Your task to perform on an android device: Search for usb-b on newegg.com, select the first entry, add it to the cart, then select checkout. Image 0: 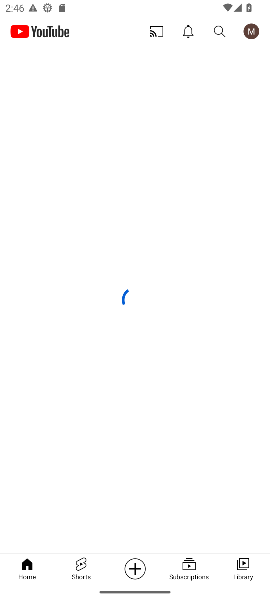
Step 0: press home button
Your task to perform on an android device: Search for usb-b on newegg.com, select the first entry, add it to the cart, then select checkout. Image 1: 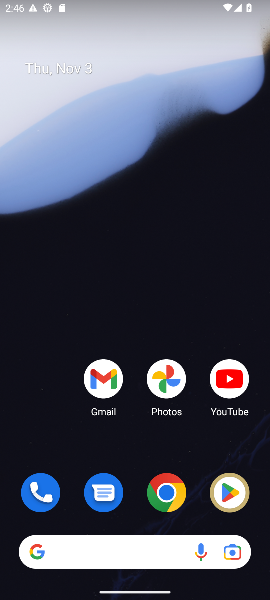
Step 1: click (174, 500)
Your task to perform on an android device: Search for usb-b on newegg.com, select the first entry, add it to the cart, then select checkout. Image 2: 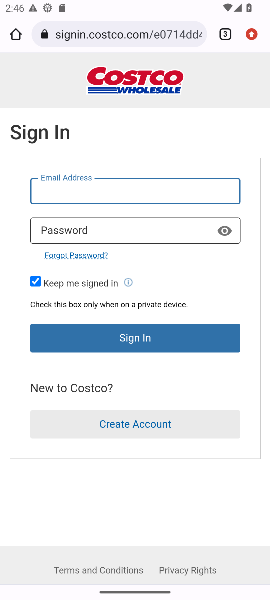
Step 2: click (171, 34)
Your task to perform on an android device: Search for usb-b on newegg.com, select the first entry, add it to the cart, then select checkout. Image 3: 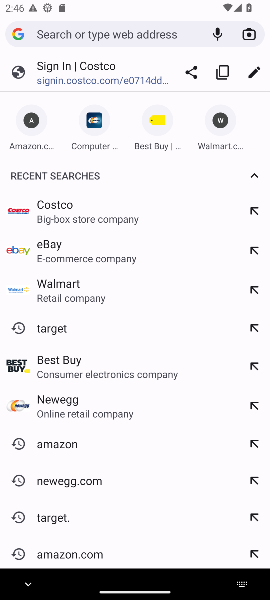
Step 3: click (95, 137)
Your task to perform on an android device: Search for usb-b on newegg.com, select the first entry, add it to the cart, then select checkout. Image 4: 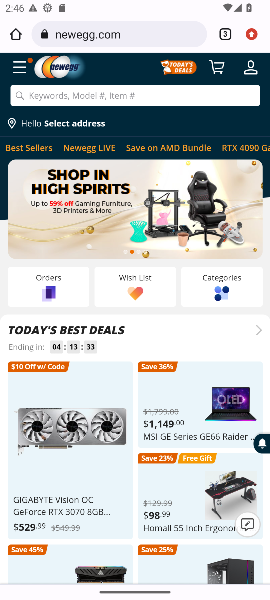
Step 4: click (86, 93)
Your task to perform on an android device: Search for usb-b on newegg.com, select the first entry, add it to the cart, then select checkout. Image 5: 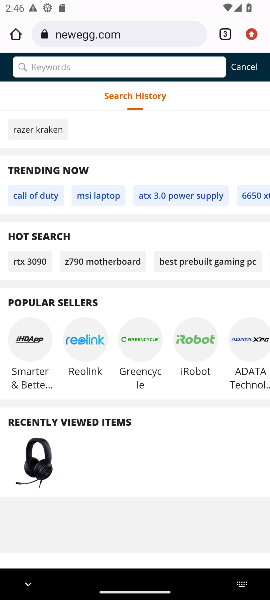
Step 5: type " usb-b"
Your task to perform on an android device: Search for usb-b on newegg.com, select the first entry, add it to the cart, then select checkout. Image 6: 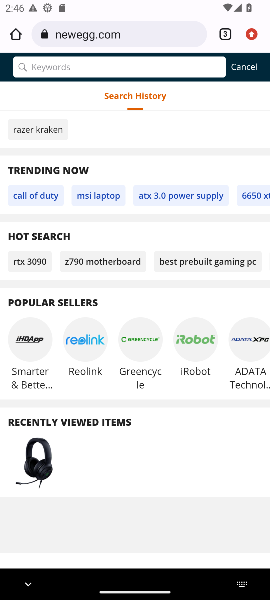
Step 6: type ""
Your task to perform on an android device: Search for usb-b on newegg.com, select the first entry, add it to the cart, then select checkout. Image 7: 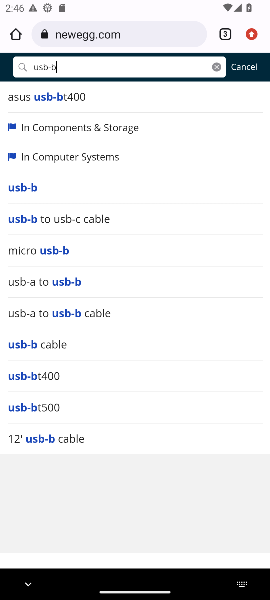
Step 7: press enter
Your task to perform on an android device: Search for usb-b on newegg.com, select the first entry, add it to the cart, then select checkout. Image 8: 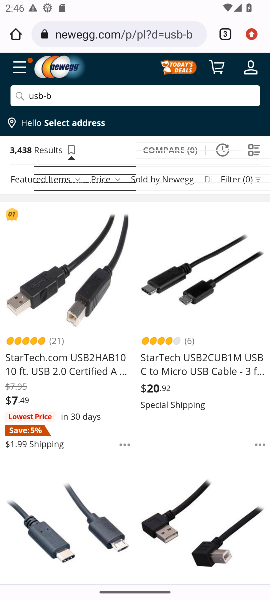
Step 8: drag from (131, 490) to (149, 287)
Your task to perform on an android device: Search for usb-b on newegg.com, select the first entry, add it to the cart, then select checkout. Image 9: 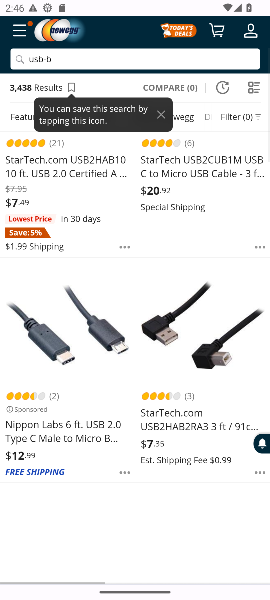
Step 9: drag from (180, 507) to (165, 266)
Your task to perform on an android device: Search for usb-b on newegg.com, select the first entry, add it to the cart, then select checkout. Image 10: 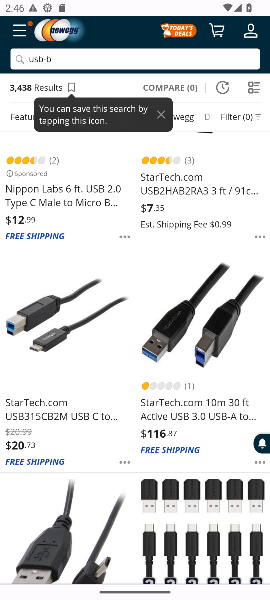
Step 10: drag from (181, 521) to (203, 274)
Your task to perform on an android device: Search for usb-b on newegg.com, select the first entry, add it to the cart, then select checkout. Image 11: 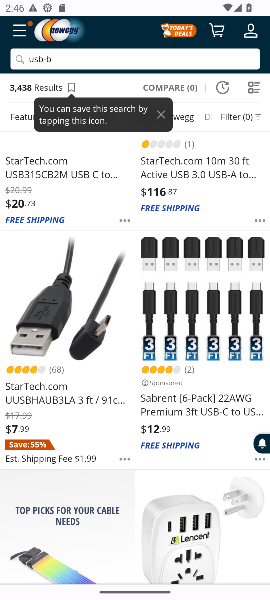
Step 11: drag from (177, 315) to (193, 552)
Your task to perform on an android device: Search for usb-b on newegg.com, select the first entry, add it to the cart, then select checkout. Image 12: 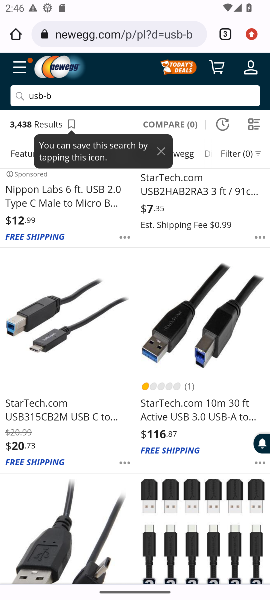
Step 12: drag from (199, 302) to (234, 535)
Your task to perform on an android device: Search for usb-b on newegg.com, select the first entry, add it to the cart, then select checkout. Image 13: 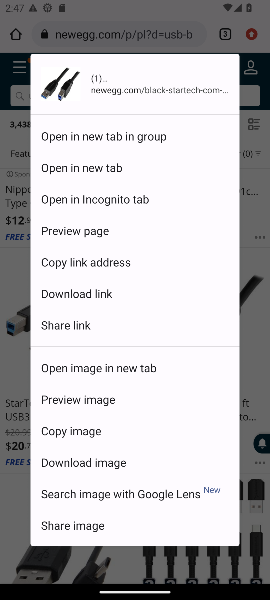
Step 13: click (252, 338)
Your task to perform on an android device: Search for usb-b on newegg.com, select the first entry, add it to the cart, then select checkout. Image 14: 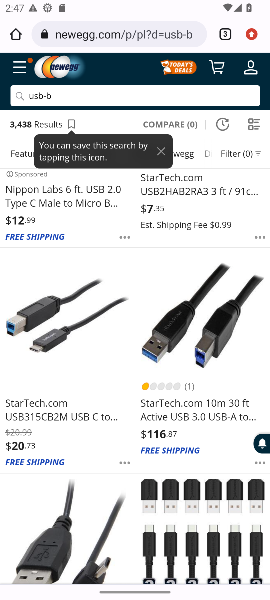
Step 14: drag from (114, 247) to (130, 478)
Your task to perform on an android device: Search for usb-b on newegg.com, select the first entry, add it to the cart, then select checkout. Image 15: 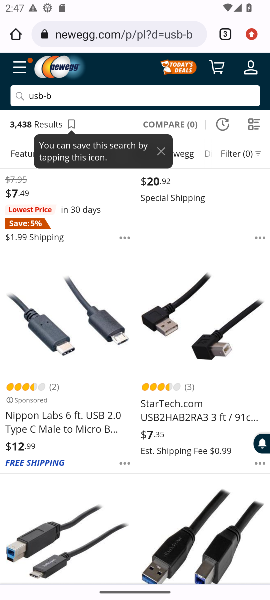
Step 15: drag from (192, 258) to (179, 503)
Your task to perform on an android device: Search for usb-b on newegg.com, select the first entry, add it to the cart, then select checkout. Image 16: 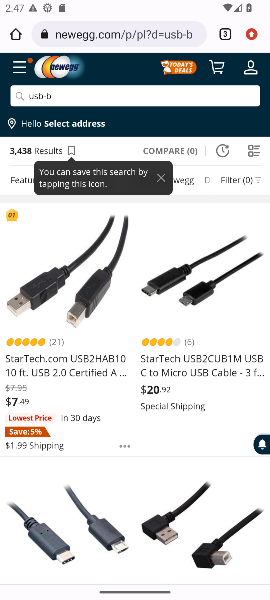
Step 16: drag from (155, 295) to (167, 447)
Your task to perform on an android device: Search for usb-b on newegg.com, select the first entry, add it to the cart, then select checkout. Image 17: 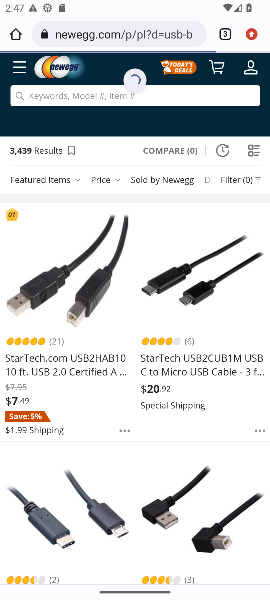
Step 17: click (89, 308)
Your task to perform on an android device: Search for usb-b on newegg.com, select the first entry, add it to the cart, then select checkout. Image 18: 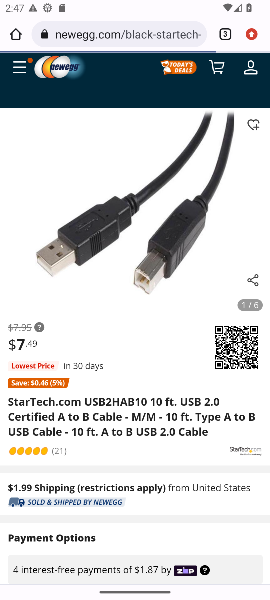
Step 18: click (77, 366)
Your task to perform on an android device: Search for usb-b on newegg.com, select the first entry, add it to the cart, then select checkout. Image 19: 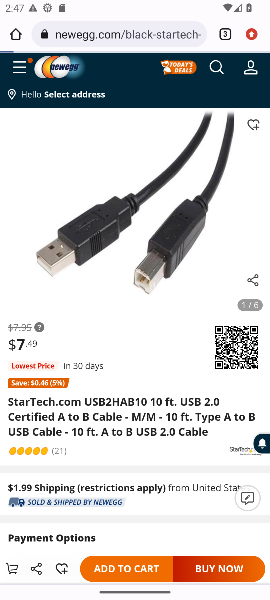
Step 19: click (137, 572)
Your task to perform on an android device: Search for usb-b on newegg.com, select the first entry, add it to the cart, then select checkout. Image 20: 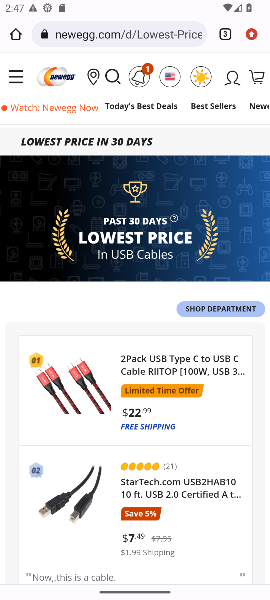
Step 20: drag from (149, 501) to (163, 186)
Your task to perform on an android device: Search for usb-b on newegg.com, select the first entry, add it to the cart, then select checkout. Image 21: 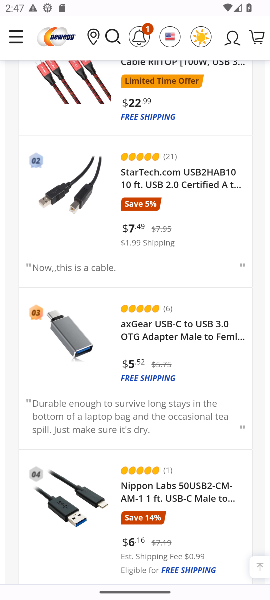
Step 21: drag from (193, 465) to (219, 119)
Your task to perform on an android device: Search for usb-b on newegg.com, select the first entry, add it to the cart, then select checkout. Image 22: 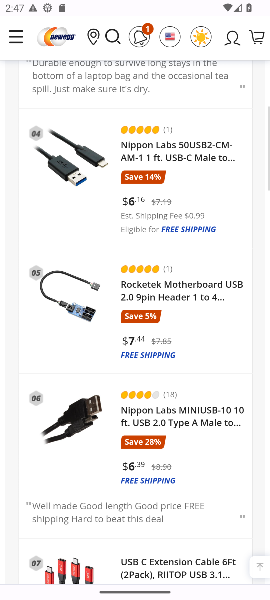
Step 22: drag from (149, 434) to (174, 566)
Your task to perform on an android device: Search for usb-b on newegg.com, select the first entry, add it to the cart, then select checkout. Image 23: 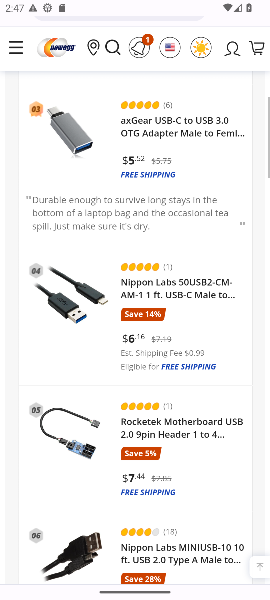
Step 23: drag from (168, 232) to (179, 538)
Your task to perform on an android device: Search for usb-b on newegg.com, select the first entry, add it to the cart, then select checkout. Image 24: 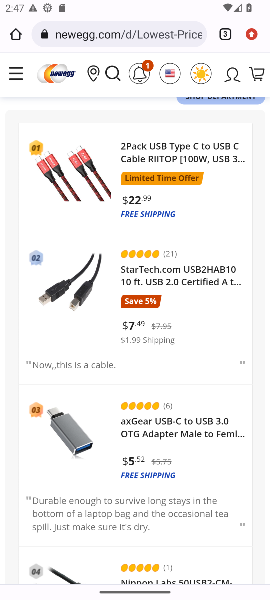
Step 24: drag from (178, 213) to (198, 593)
Your task to perform on an android device: Search for usb-b on newegg.com, select the first entry, add it to the cart, then select checkout. Image 25: 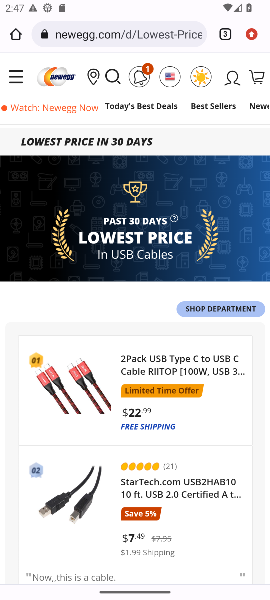
Step 25: press back button
Your task to perform on an android device: Search for usb-b on newegg.com, select the first entry, add it to the cart, then select checkout. Image 26: 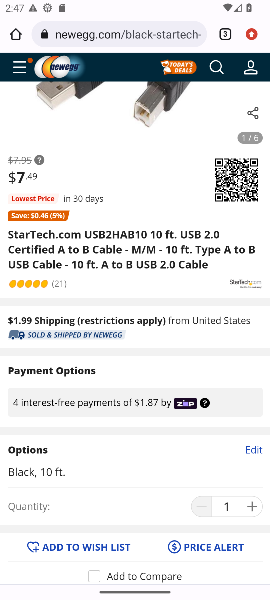
Step 26: click (98, 571)
Your task to perform on an android device: Search for usb-b on newegg.com, select the first entry, add it to the cart, then select checkout. Image 27: 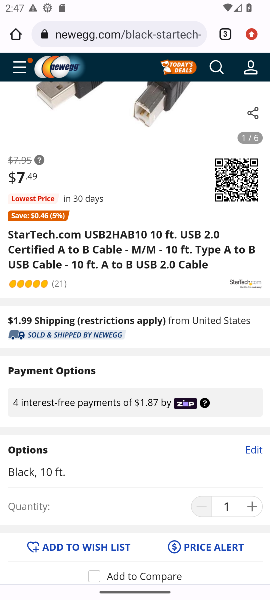
Step 27: click (15, 569)
Your task to perform on an android device: Search for usb-b on newegg.com, select the first entry, add it to the cart, then select checkout. Image 28: 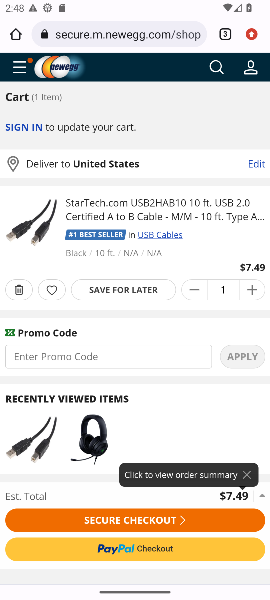
Step 28: click (78, 528)
Your task to perform on an android device: Search for usb-b on newegg.com, select the first entry, add it to the cart, then select checkout. Image 29: 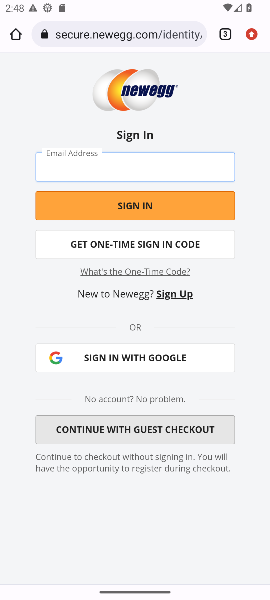
Step 29: task complete